Your task to perform on an android device: turn off data saver in the chrome app Image 0: 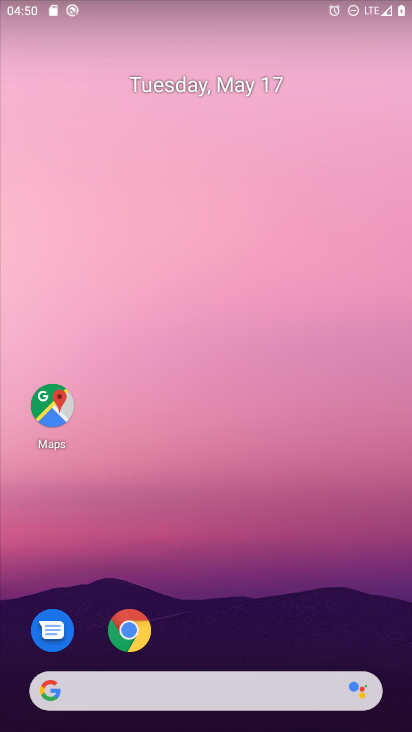
Step 0: click (125, 627)
Your task to perform on an android device: turn off data saver in the chrome app Image 1: 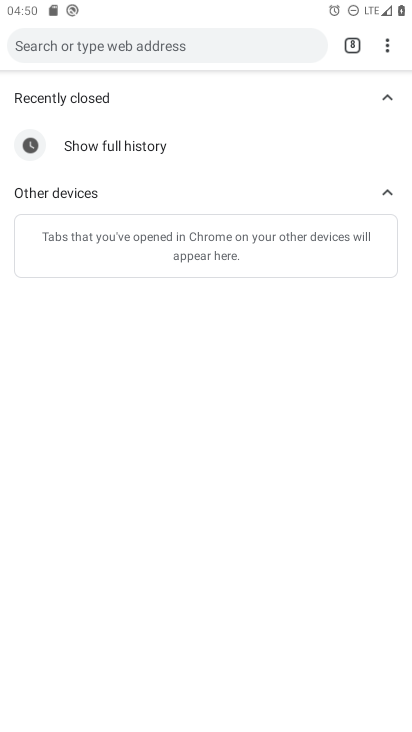
Step 1: drag from (383, 46) to (245, 386)
Your task to perform on an android device: turn off data saver in the chrome app Image 2: 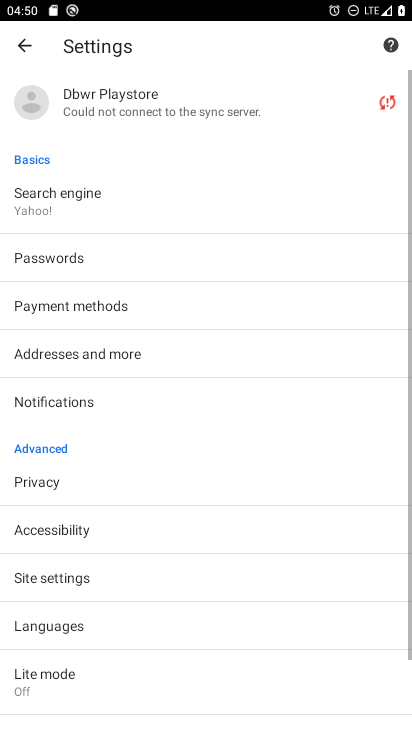
Step 2: click (65, 684)
Your task to perform on an android device: turn off data saver in the chrome app Image 3: 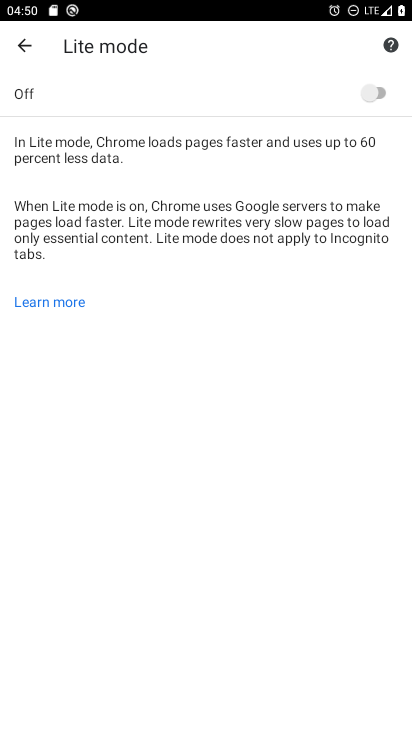
Step 3: task complete